Your task to perform on an android device: Open Yahoo.com Image 0: 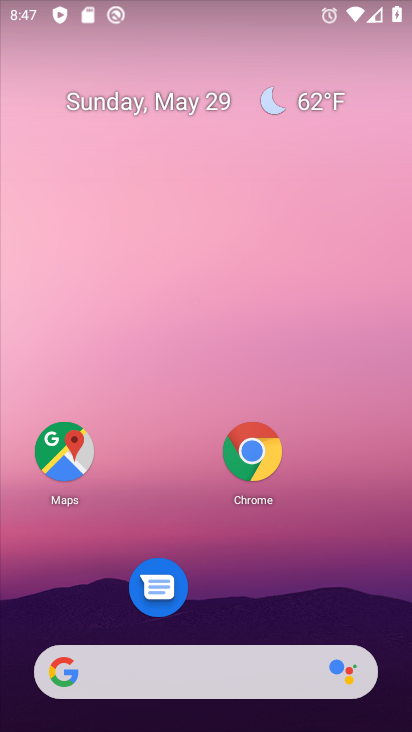
Step 0: click (254, 457)
Your task to perform on an android device: Open Yahoo.com Image 1: 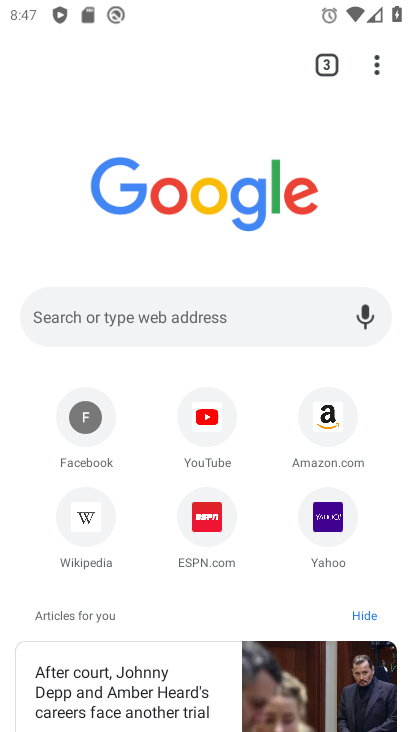
Step 1: click (313, 510)
Your task to perform on an android device: Open Yahoo.com Image 2: 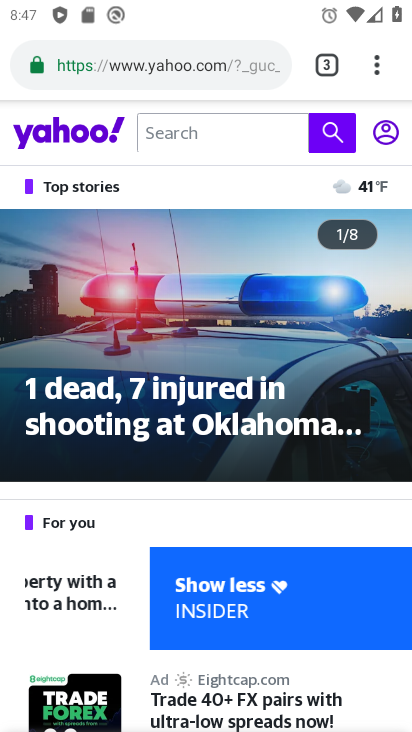
Step 2: task complete